Your task to perform on an android device: What's on my calendar today? Image 0: 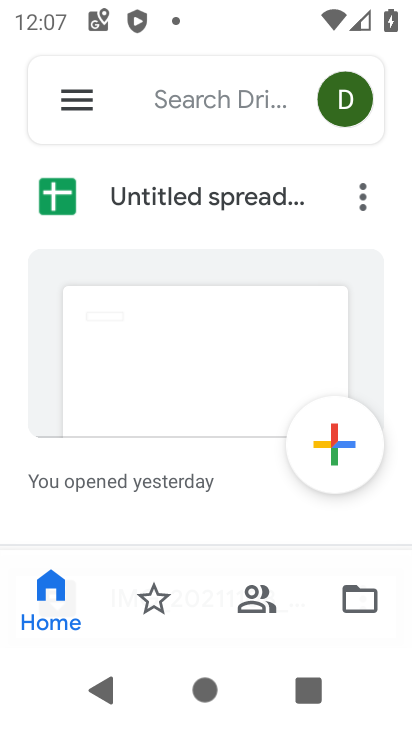
Step 0: press home button
Your task to perform on an android device: What's on my calendar today? Image 1: 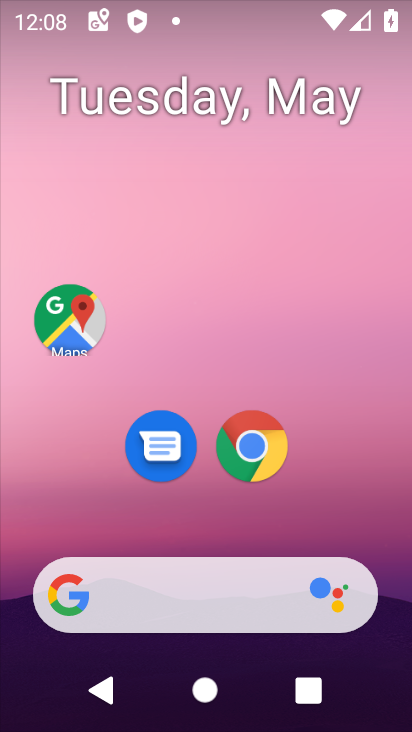
Step 1: drag from (328, 511) to (308, 37)
Your task to perform on an android device: What's on my calendar today? Image 2: 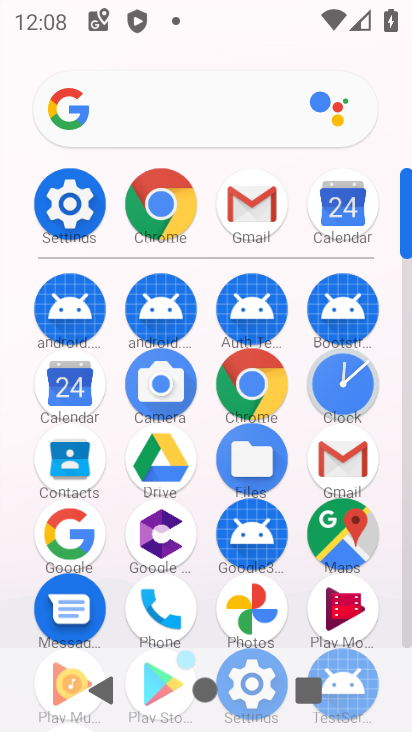
Step 2: click (67, 395)
Your task to perform on an android device: What's on my calendar today? Image 3: 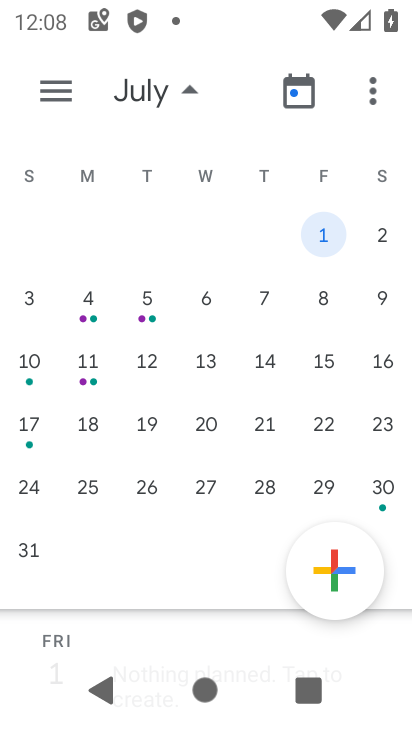
Step 3: task complete